Your task to perform on an android device: What's the weather going to be this weekend? Image 0: 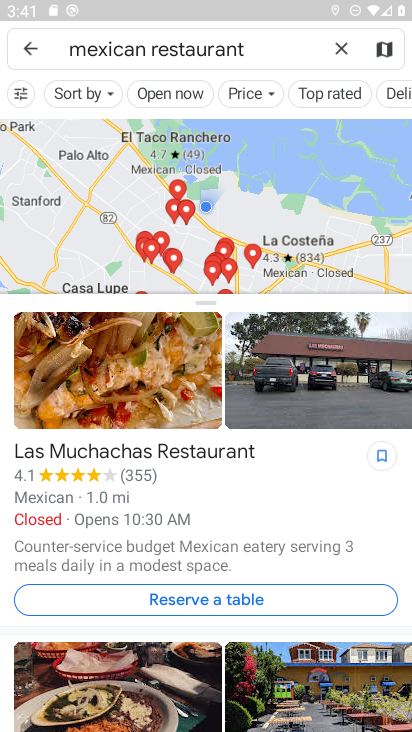
Step 0: press back button
Your task to perform on an android device: What's the weather going to be this weekend? Image 1: 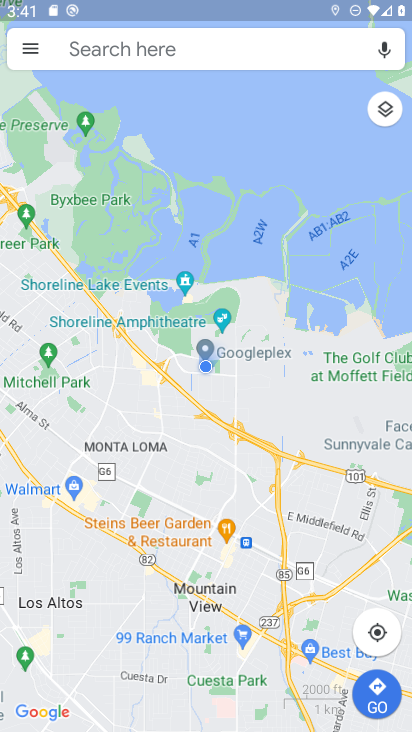
Step 1: click (154, 50)
Your task to perform on an android device: What's the weather going to be this weekend? Image 2: 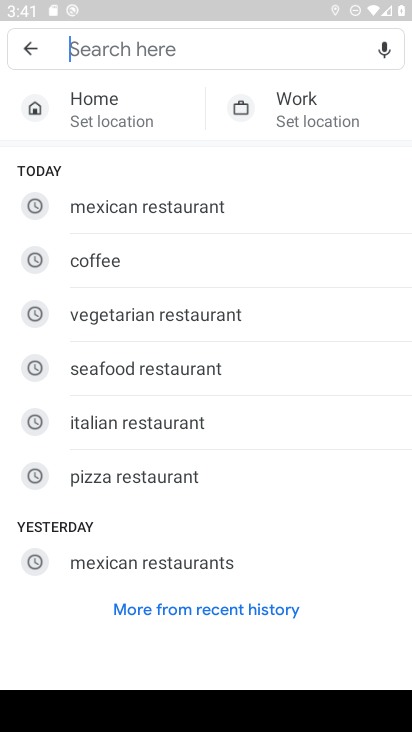
Step 2: press back button
Your task to perform on an android device: What's the weather going to be this weekend? Image 3: 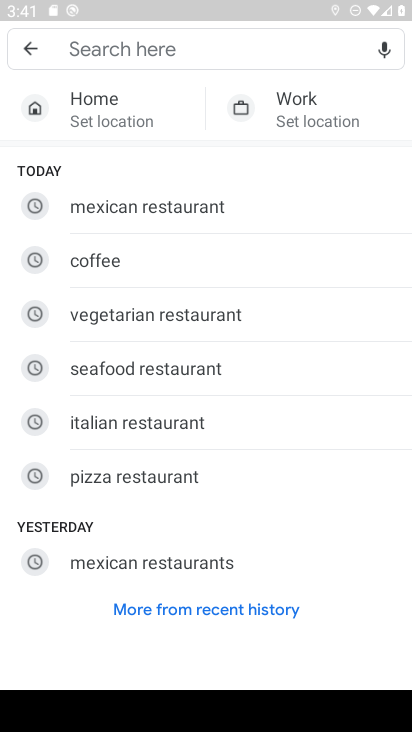
Step 3: press back button
Your task to perform on an android device: What's the weather going to be this weekend? Image 4: 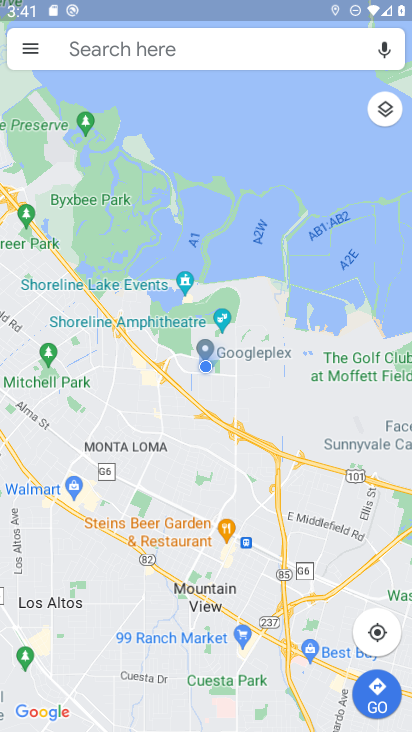
Step 4: press back button
Your task to perform on an android device: What's the weather going to be this weekend? Image 5: 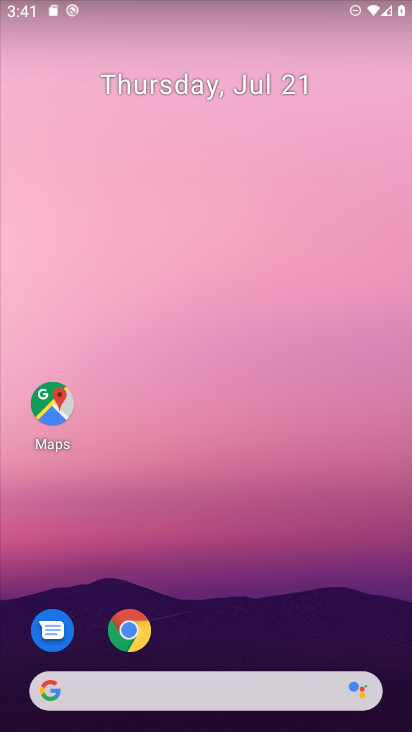
Step 5: click (136, 692)
Your task to perform on an android device: What's the weather going to be this weekend? Image 6: 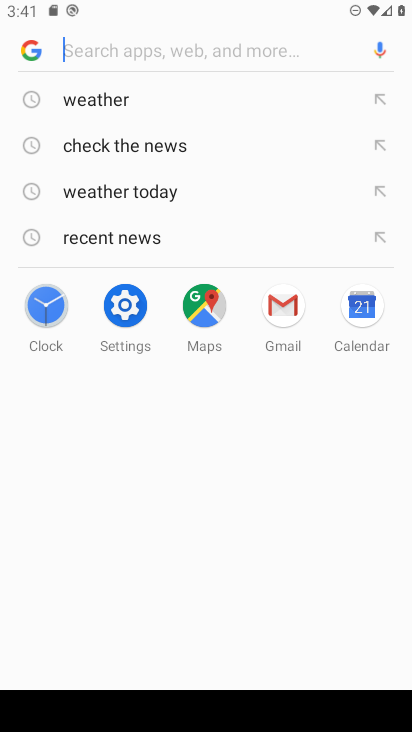
Step 6: click (108, 85)
Your task to perform on an android device: What's the weather going to be this weekend? Image 7: 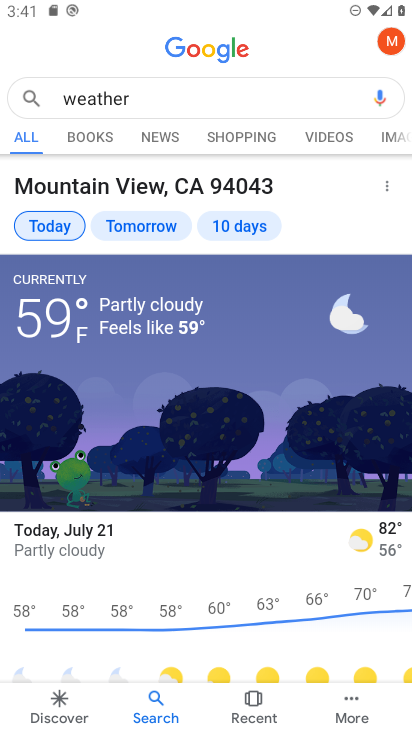
Step 7: click (218, 227)
Your task to perform on an android device: What's the weather going to be this weekend? Image 8: 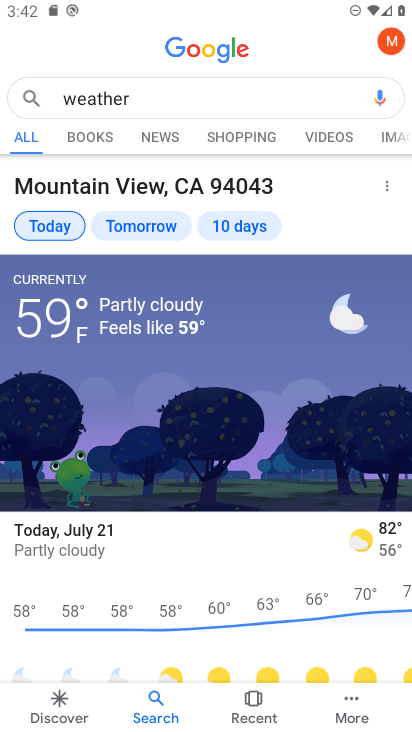
Step 8: click (228, 222)
Your task to perform on an android device: What's the weather going to be this weekend? Image 9: 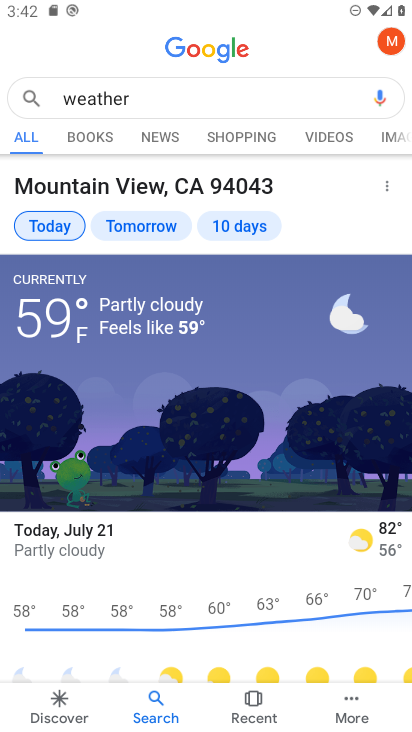
Step 9: task complete